Your task to perform on an android device: Show me popular videos on Youtube Image 0: 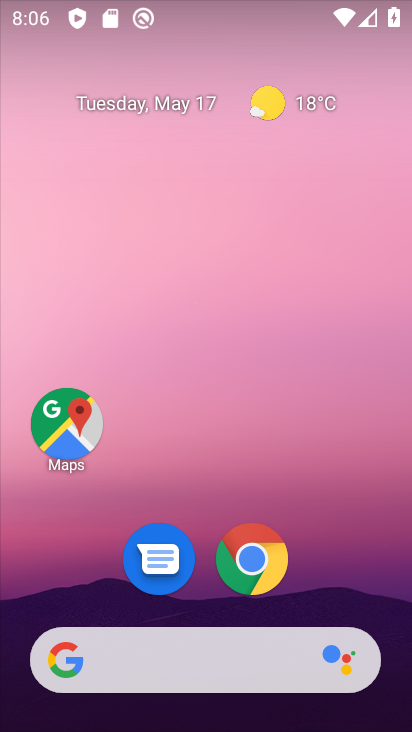
Step 0: drag from (203, 648) to (169, 51)
Your task to perform on an android device: Show me popular videos on Youtube Image 1: 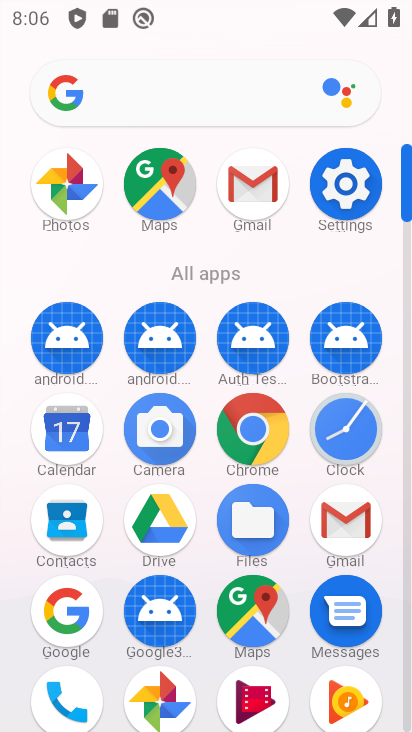
Step 1: drag from (200, 591) to (185, 222)
Your task to perform on an android device: Show me popular videos on Youtube Image 2: 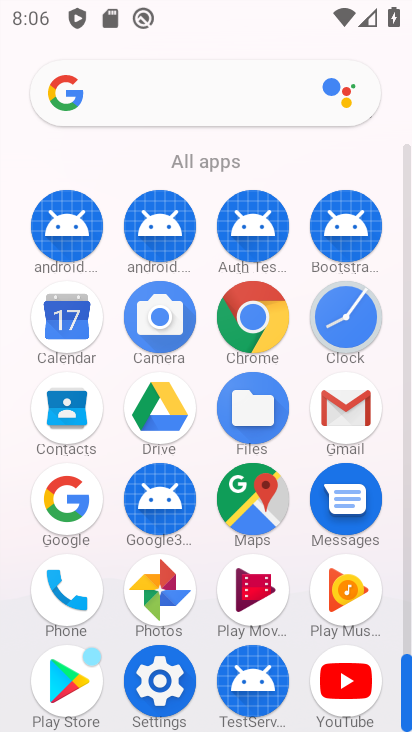
Step 2: click (352, 684)
Your task to perform on an android device: Show me popular videos on Youtube Image 3: 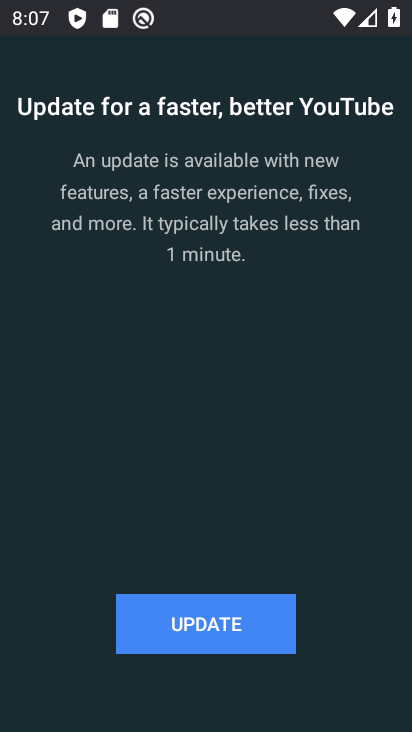
Step 3: click (218, 613)
Your task to perform on an android device: Show me popular videos on Youtube Image 4: 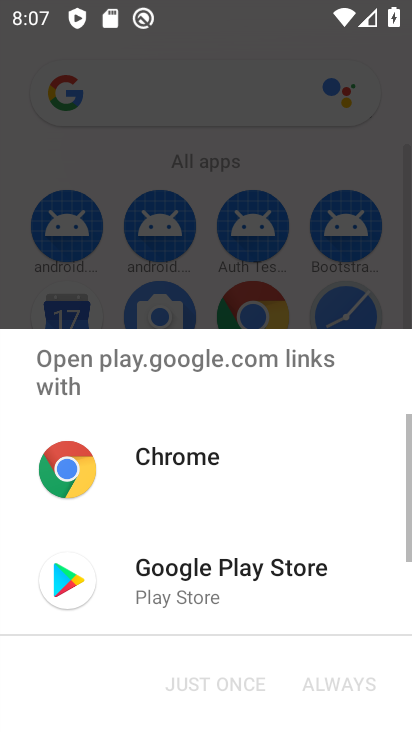
Step 4: click (283, 577)
Your task to perform on an android device: Show me popular videos on Youtube Image 5: 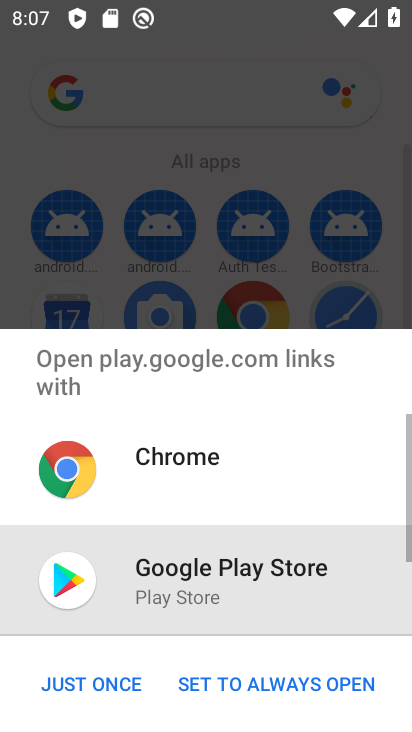
Step 5: click (114, 690)
Your task to perform on an android device: Show me popular videos on Youtube Image 6: 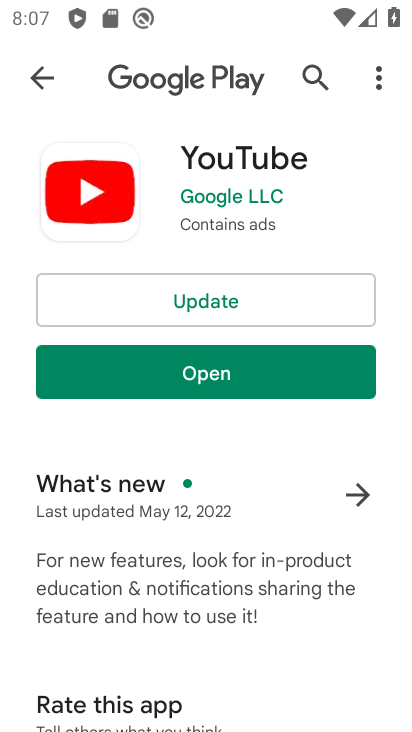
Step 6: click (204, 300)
Your task to perform on an android device: Show me popular videos on Youtube Image 7: 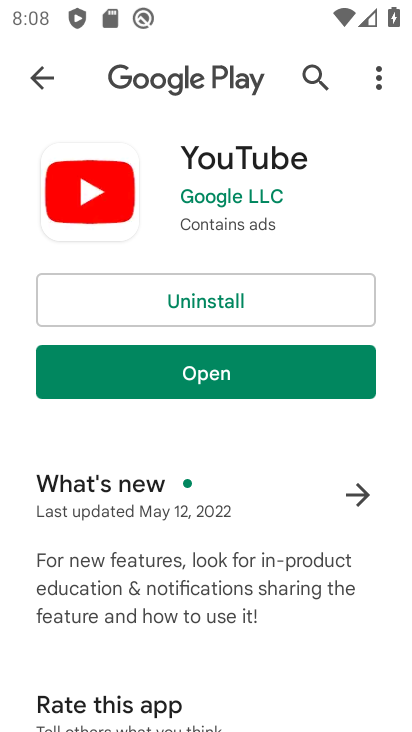
Step 7: click (180, 390)
Your task to perform on an android device: Show me popular videos on Youtube Image 8: 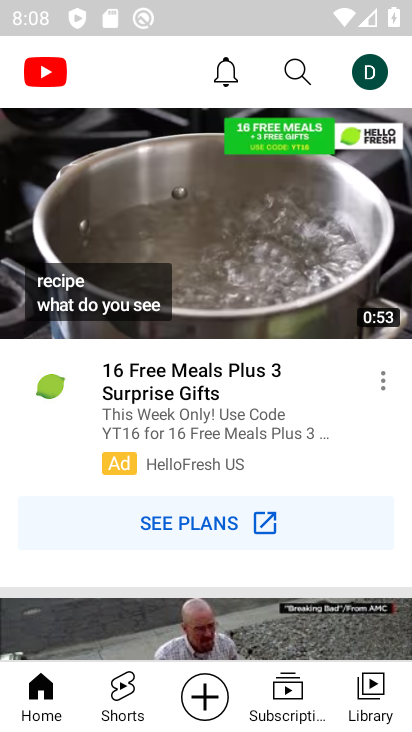
Step 8: task complete